Your task to perform on an android device: Go to Android settings Image 0: 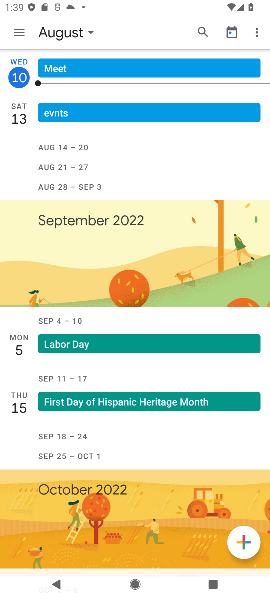
Step 0: task complete